Your task to perform on an android device: see tabs open on other devices in the chrome app Image 0: 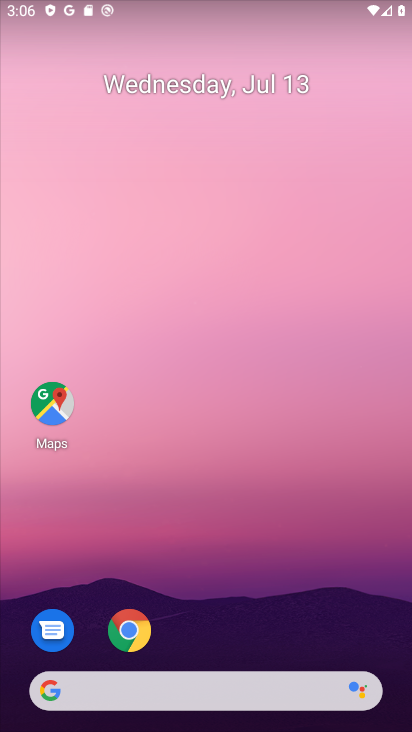
Step 0: drag from (179, 563) to (192, 7)
Your task to perform on an android device: see tabs open on other devices in the chrome app Image 1: 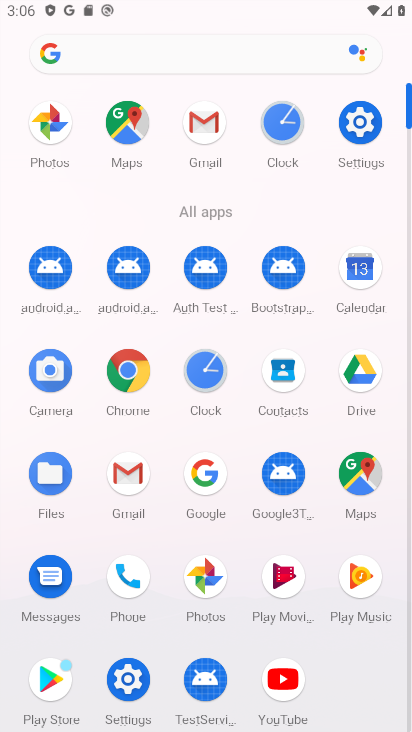
Step 1: click (131, 381)
Your task to perform on an android device: see tabs open on other devices in the chrome app Image 2: 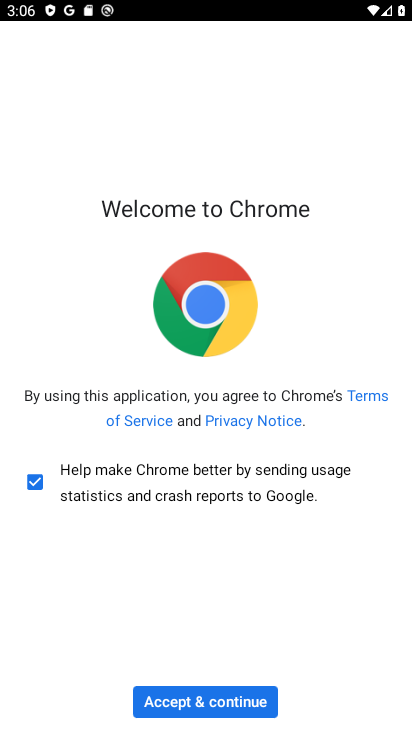
Step 2: click (197, 701)
Your task to perform on an android device: see tabs open on other devices in the chrome app Image 3: 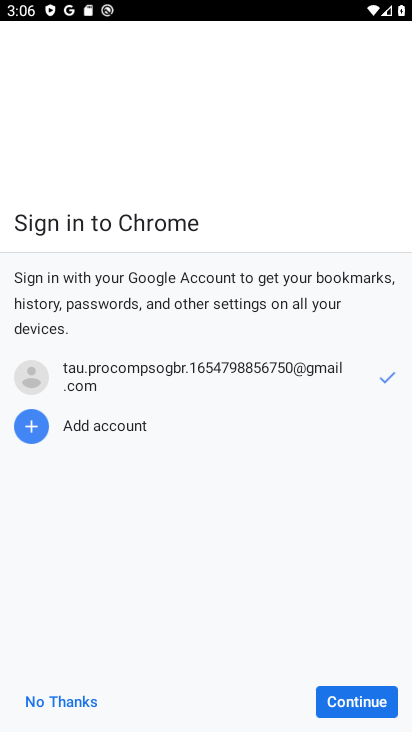
Step 3: click (341, 697)
Your task to perform on an android device: see tabs open on other devices in the chrome app Image 4: 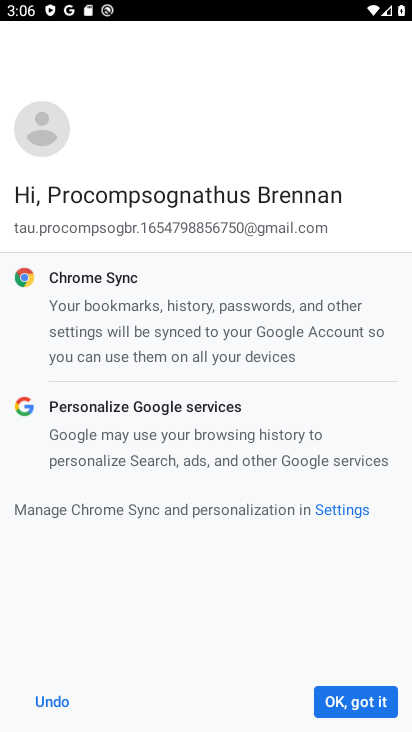
Step 4: click (341, 697)
Your task to perform on an android device: see tabs open on other devices in the chrome app Image 5: 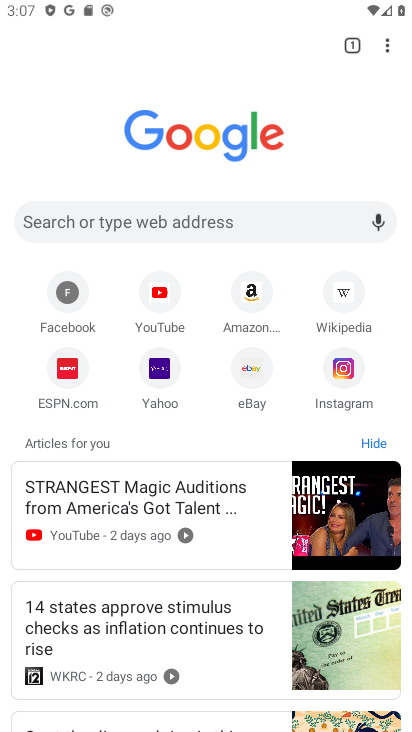
Step 5: click (348, 47)
Your task to perform on an android device: see tabs open on other devices in the chrome app Image 6: 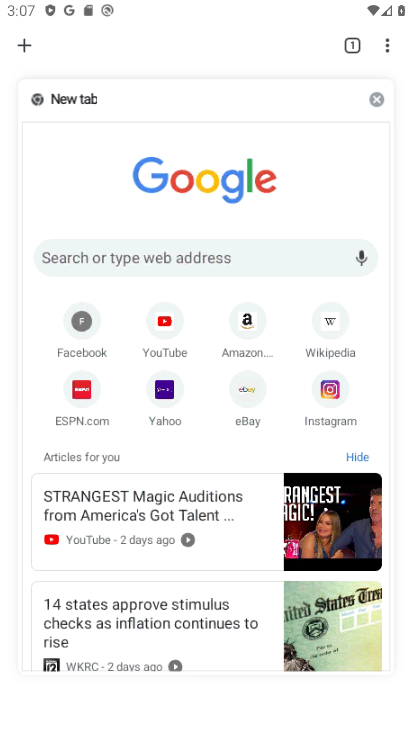
Step 6: click (389, 47)
Your task to perform on an android device: see tabs open on other devices in the chrome app Image 7: 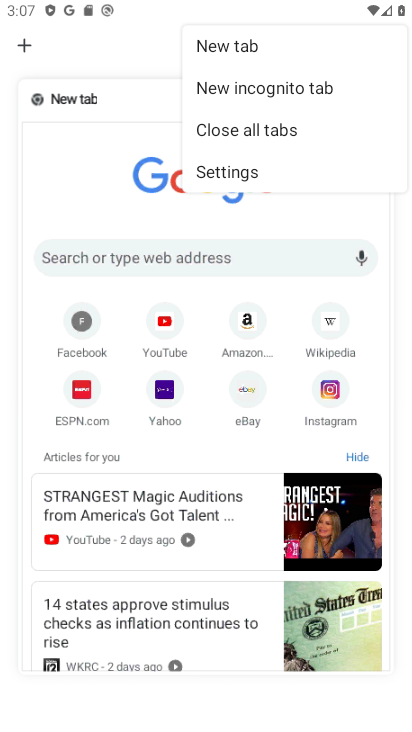
Step 7: click (22, 45)
Your task to perform on an android device: see tabs open on other devices in the chrome app Image 8: 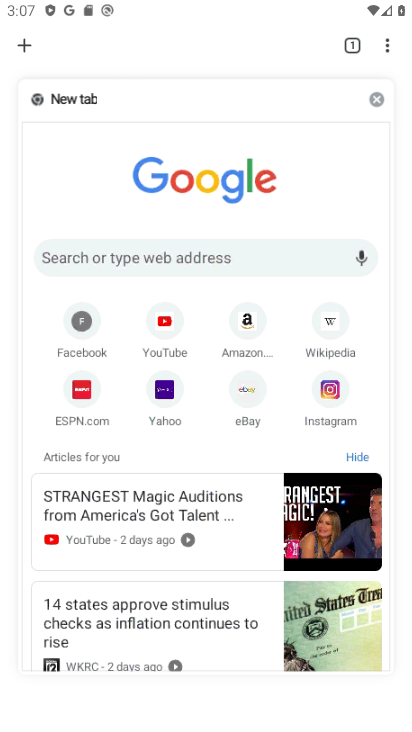
Step 8: click (22, 45)
Your task to perform on an android device: see tabs open on other devices in the chrome app Image 9: 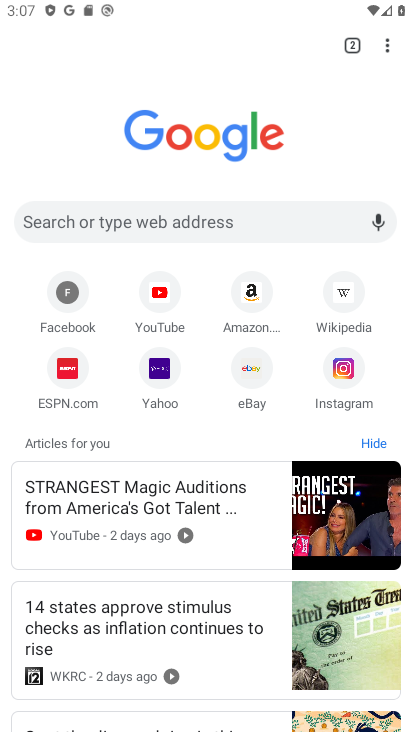
Step 9: click (382, 53)
Your task to perform on an android device: see tabs open on other devices in the chrome app Image 10: 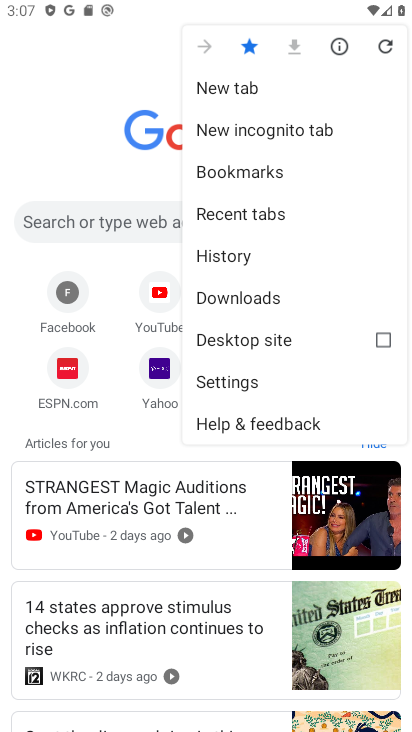
Step 10: click (231, 214)
Your task to perform on an android device: see tabs open on other devices in the chrome app Image 11: 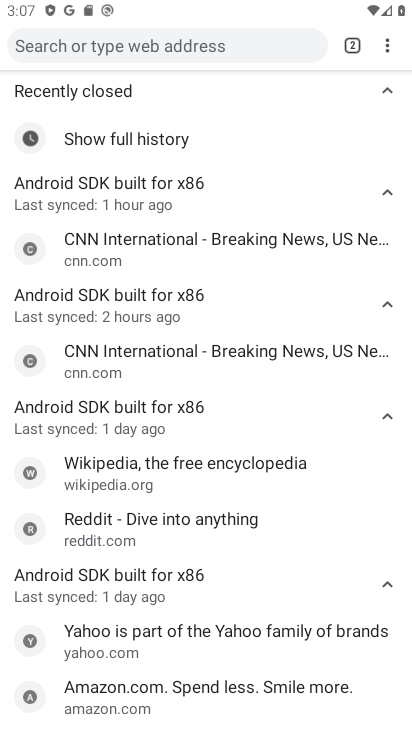
Step 11: task complete